Your task to perform on an android device: Go to Amazon Image 0: 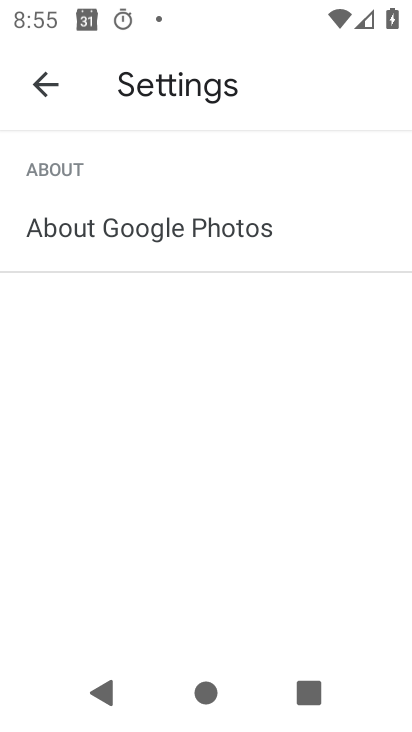
Step 0: press home button
Your task to perform on an android device: Go to Amazon Image 1: 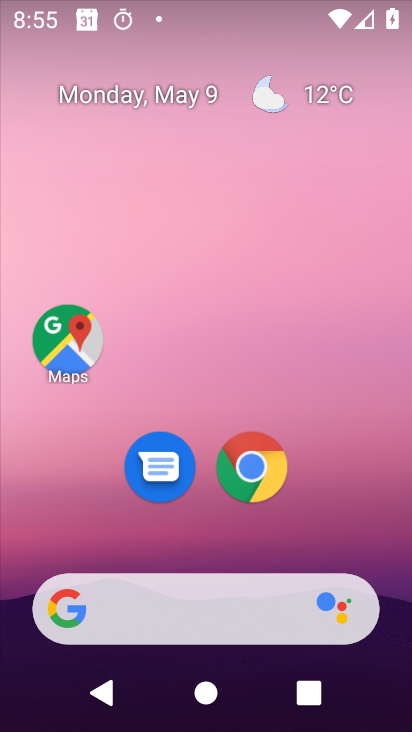
Step 1: click (251, 478)
Your task to perform on an android device: Go to Amazon Image 2: 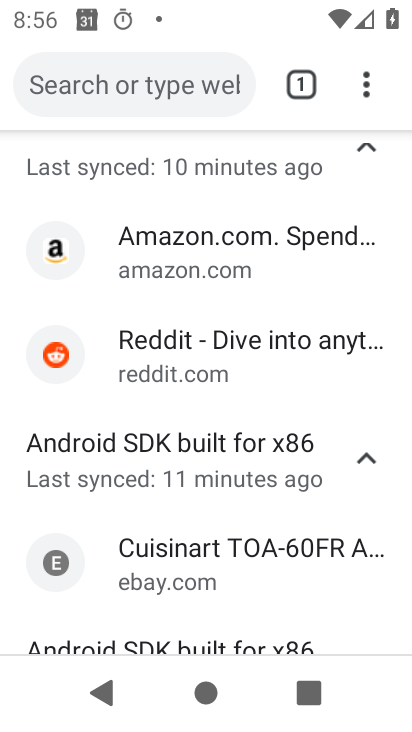
Step 2: click (100, 82)
Your task to perform on an android device: Go to Amazon Image 3: 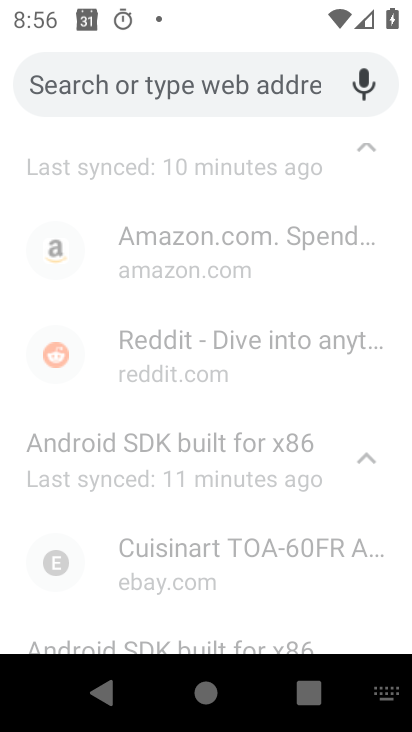
Step 3: type "amazon"
Your task to perform on an android device: Go to Amazon Image 4: 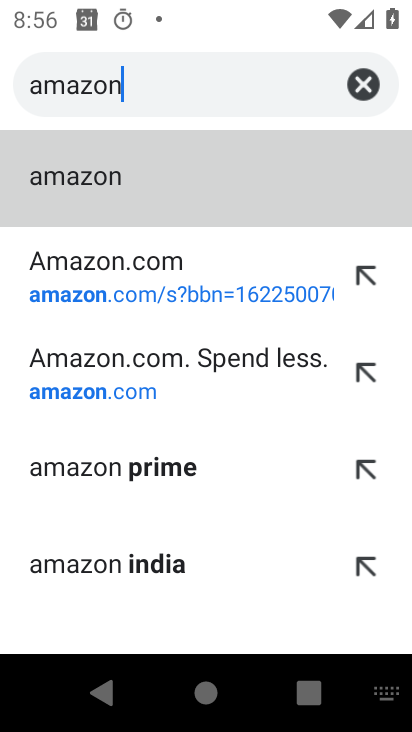
Step 4: click (115, 172)
Your task to perform on an android device: Go to Amazon Image 5: 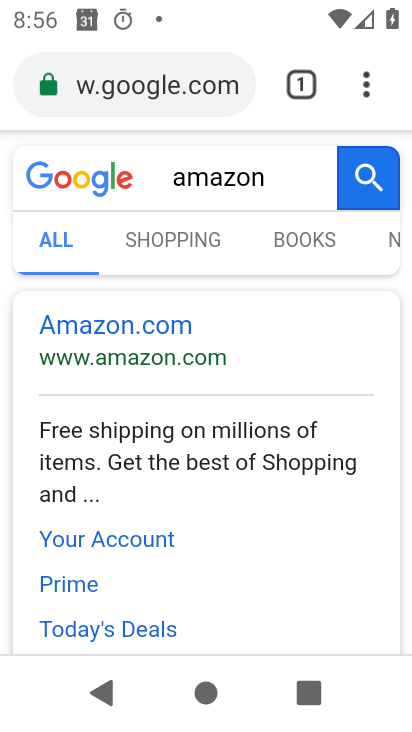
Step 5: click (87, 342)
Your task to perform on an android device: Go to Amazon Image 6: 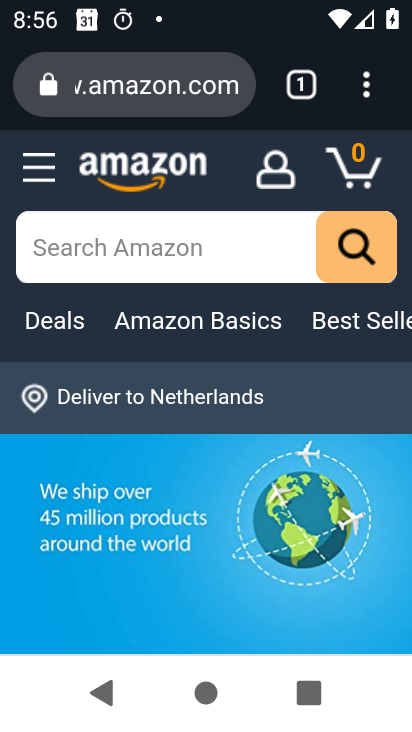
Step 6: task complete